Your task to perform on an android device: turn off location Image 0: 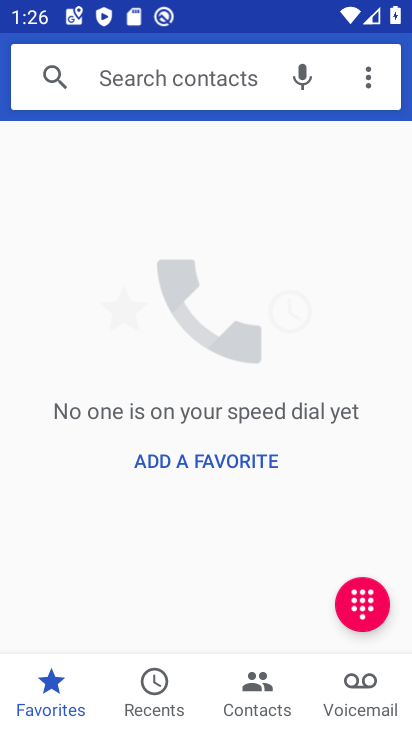
Step 0: press home button
Your task to perform on an android device: turn off location Image 1: 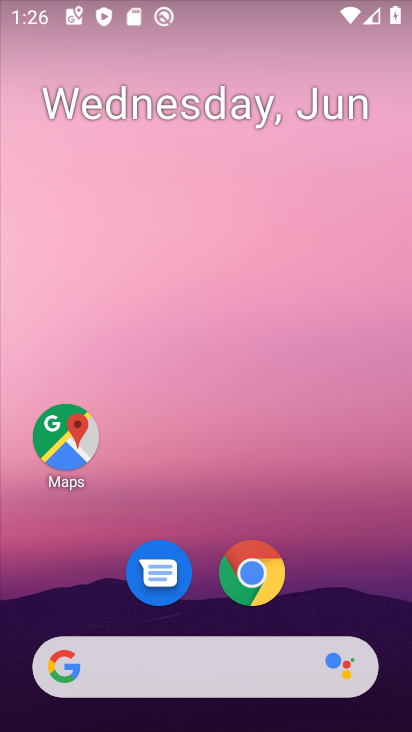
Step 1: drag from (346, 541) to (291, 198)
Your task to perform on an android device: turn off location Image 2: 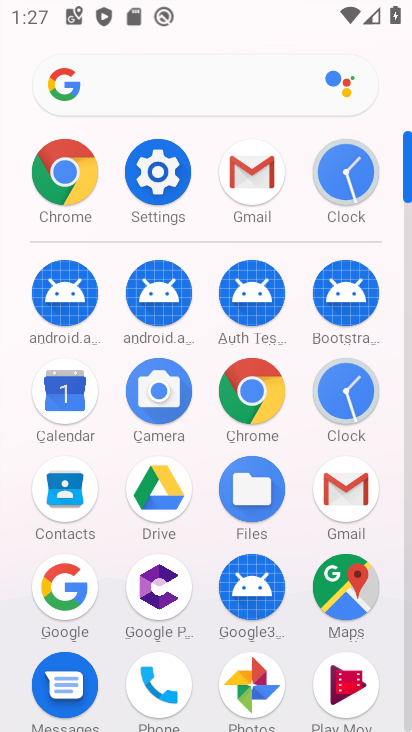
Step 2: click (159, 189)
Your task to perform on an android device: turn off location Image 3: 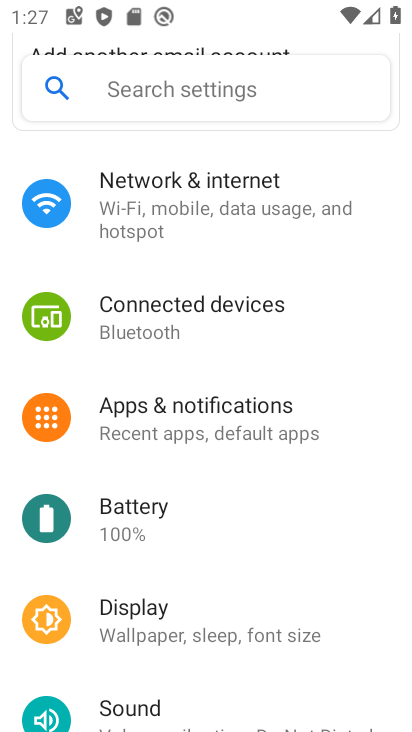
Step 3: click (341, 315)
Your task to perform on an android device: turn off location Image 4: 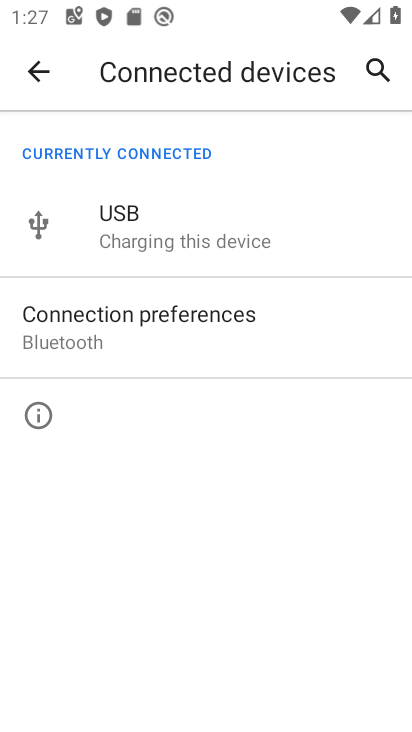
Step 4: click (46, 75)
Your task to perform on an android device: turn off location Image 5: 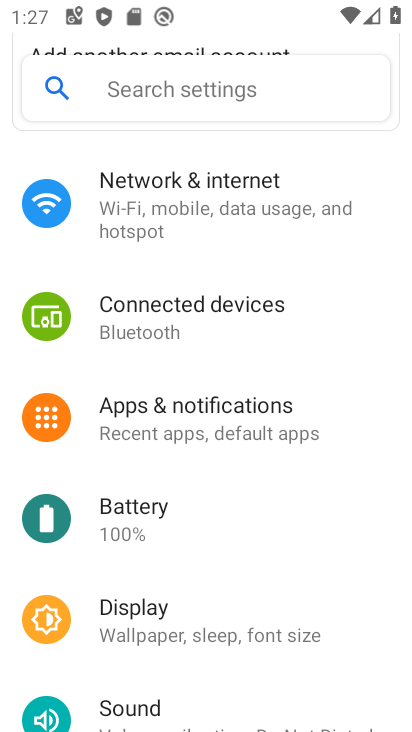
Step 5: drag from (250, 524) to (267, 229)
Your task to perform on an android device: turn off location Image 6: 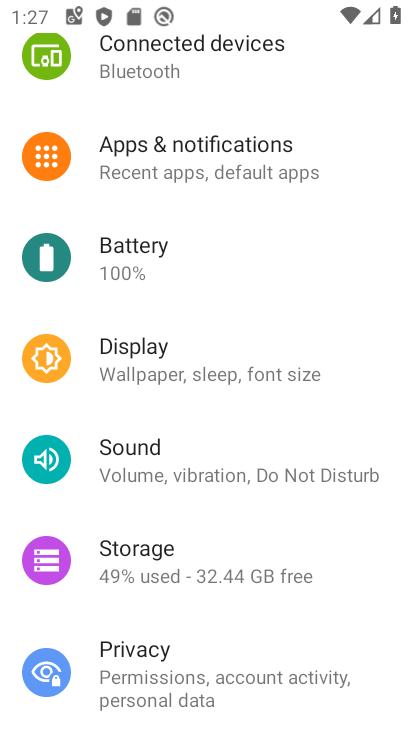
Step 6: drag from (267, 564) to (291, 284)
Your task to perform on an android device: turn off location Image 7: 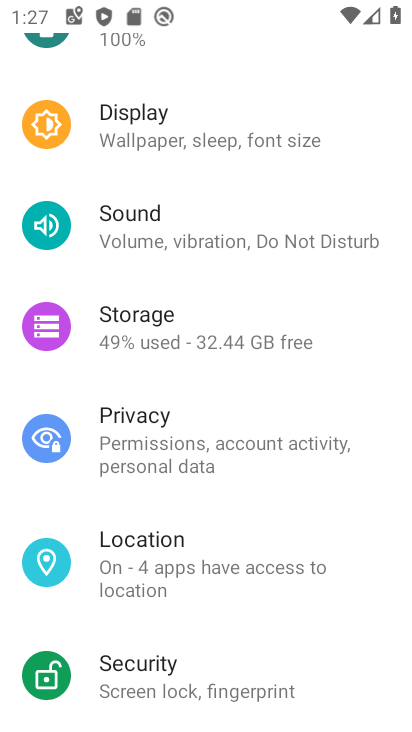
Step 7: click (260, 551)
Your task to perform on an android device: turn off location Image 8: 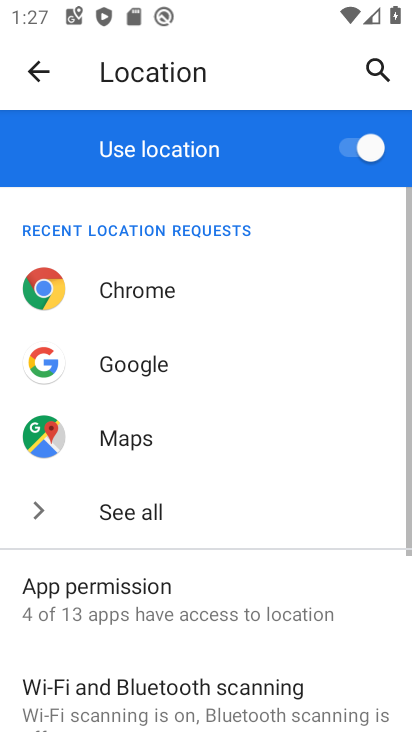
Step 8: drag from (242, 539) to (272, 320)
Your task to perform on an android device: turn off location Image 9: 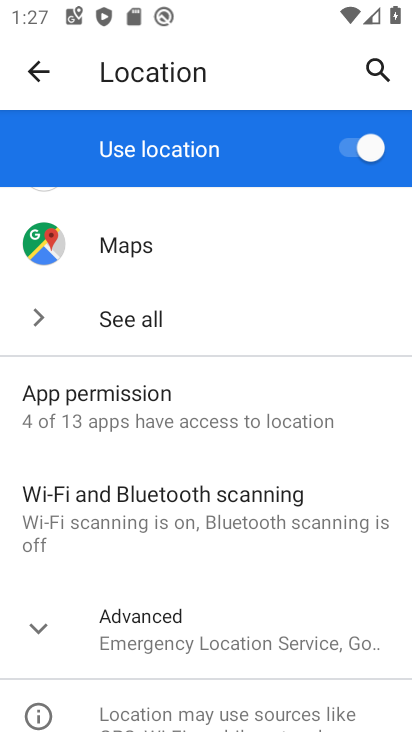
Step 9: click (364, 152)
Your task to perform on an android device: turn off location Image 10: 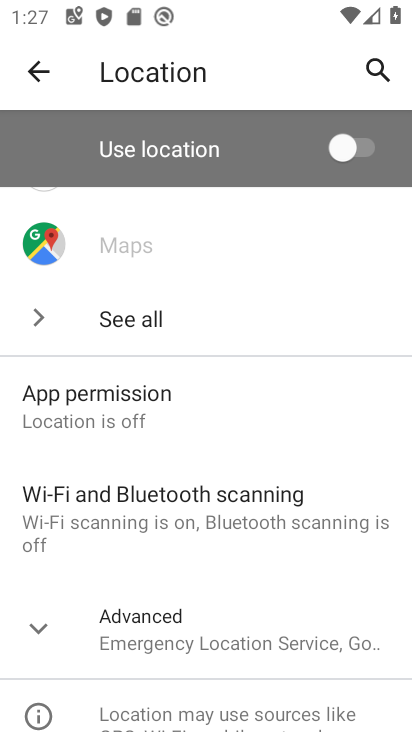
Step 10: task complete